Your task to perform on an android device: allow notifications from all sites in the chrome app Image 0: 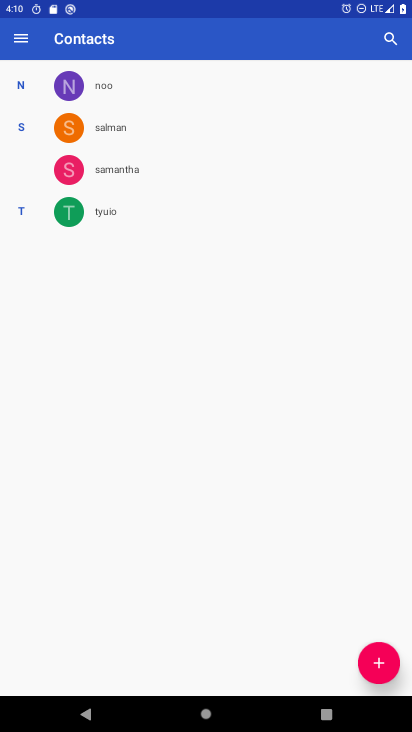
Step 0: press home button
Your task to perform on an android device: allow notifications from all sites in the chrome app Image 1: 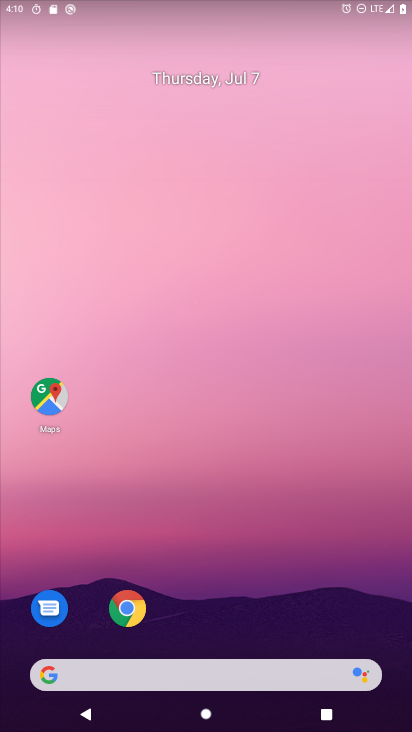
Step 1: drag from (248, 717) to (234, 69)
Your task to perform on an android device: allow notifications from all sites in the chrome app Image 2: 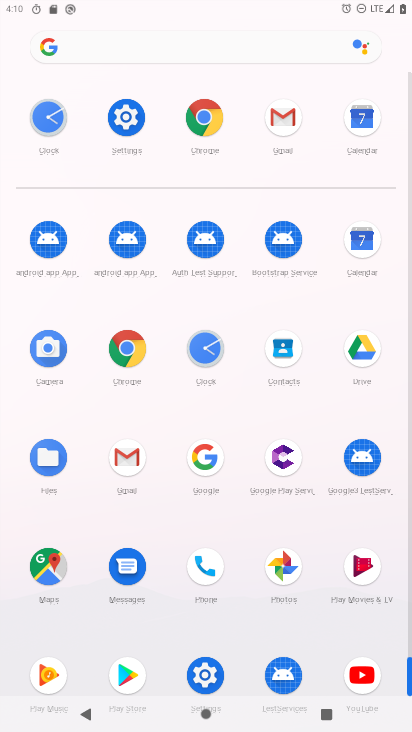
Step 2: click (203, 111)
Your task to perform on an android device: allow notifications from all sites in the chrome app Image 3: 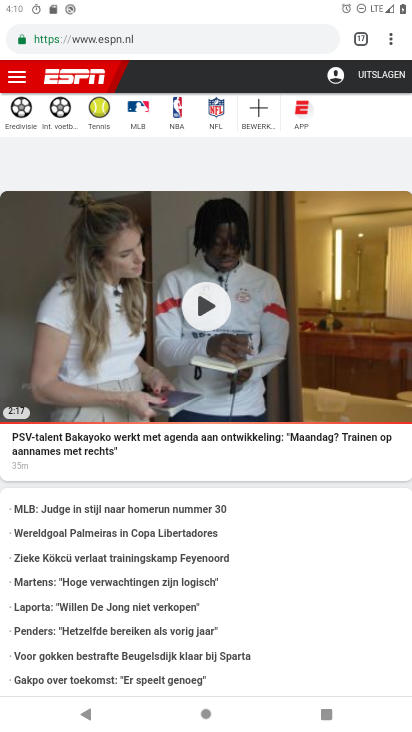
Step 3: click (392, 41)
Your task to perform on an android device: allow notifications from all sites in the chrome app Image 4: 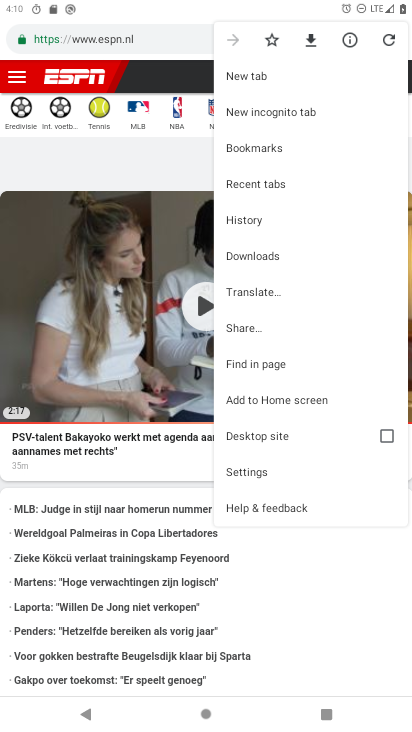
Step 4: click (245, 468)
Your task to perform on an android device: allow notifications from all sites in the chrome app Image 5: 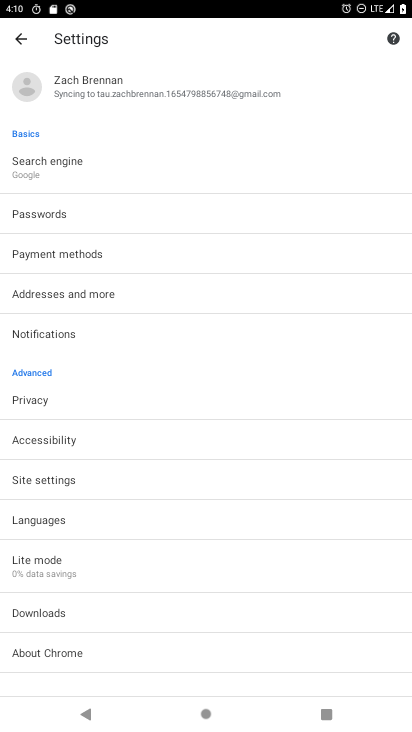
Step 5: click (43, 479)
Your task to perform on an android device: allow notifications from all sites in the chrome app Image 6: 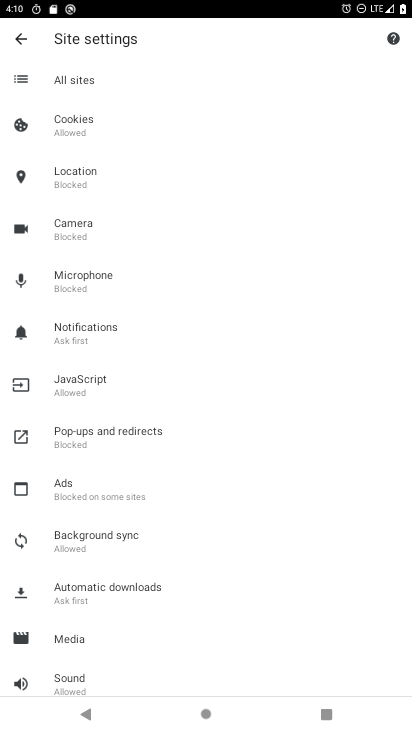
Step 6: click (74, 326)
Your task to perform on an android device: allow notifications from all sites in the chrome app Image 7: 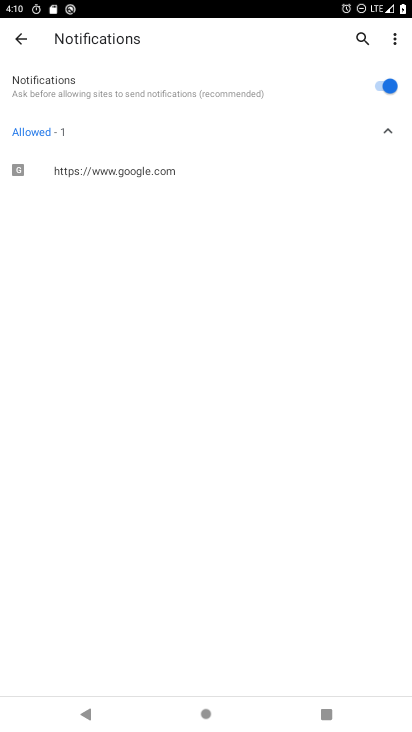
Step 7: task complete